Your task to perform on an android device: Go to CNN.com Image 0: 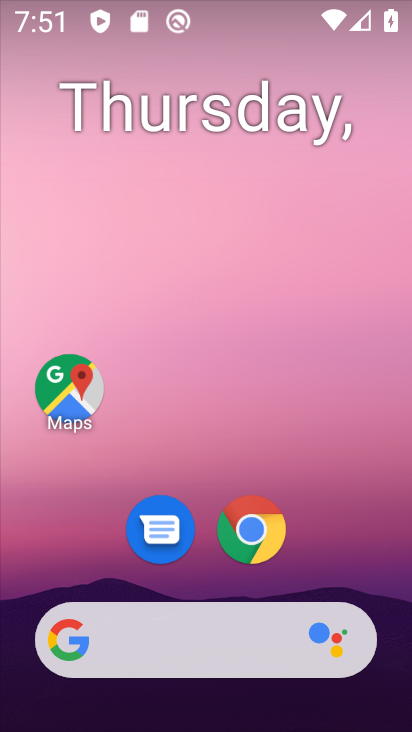
Step 0: click (181, 143)
Your task to perform on an android device: Go to CNN.com Image 1: 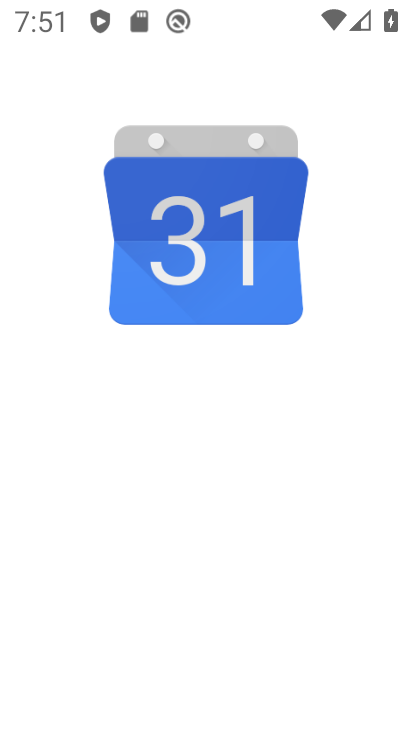
Step 1: drag from (273, 698) to (214, 11)
Your task to perform on an android device: Go to CNN.com Image 2: 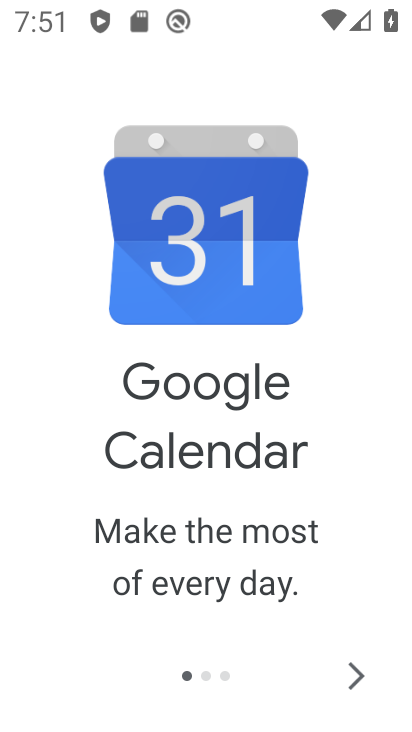
Step 2: click (350, 671)
Your task to perform on an android device: Go to CNN.com Image 3: 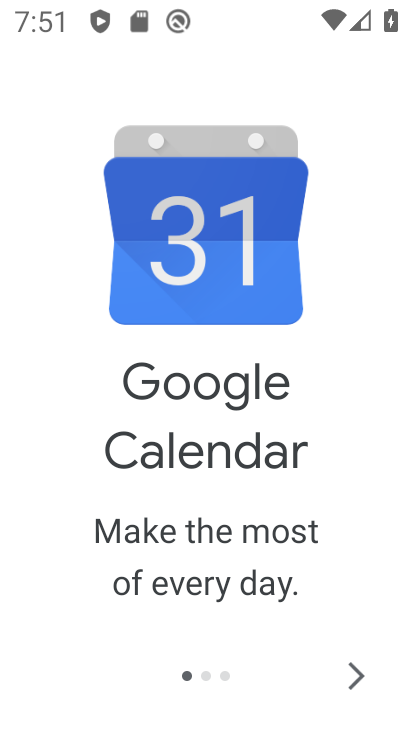
Step 3: click (350, 671)
Your task to perform on an android device: Go to CNN.com Image 4: 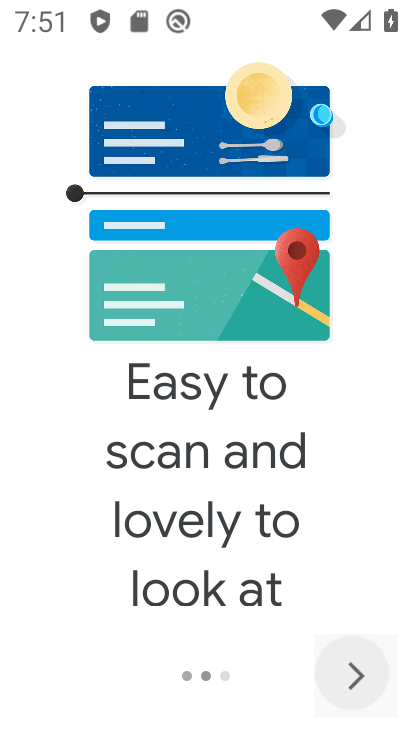
Step 4: click (350, 671)
Your task to perform on an android device: Go to CNN.com Image 5: 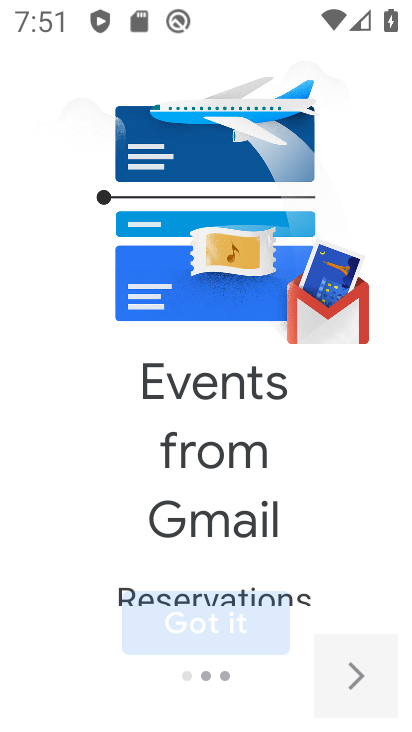
Step 5: click (350, 671)
Your task to perform on an android device: Go to CNN.com Image 6: 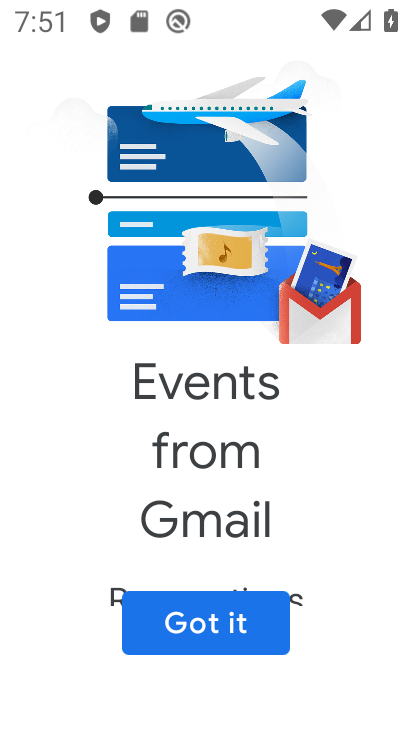
Step 6: click (204, 607)
Your task to perform on an android device: Go to CNN.com Image 7: 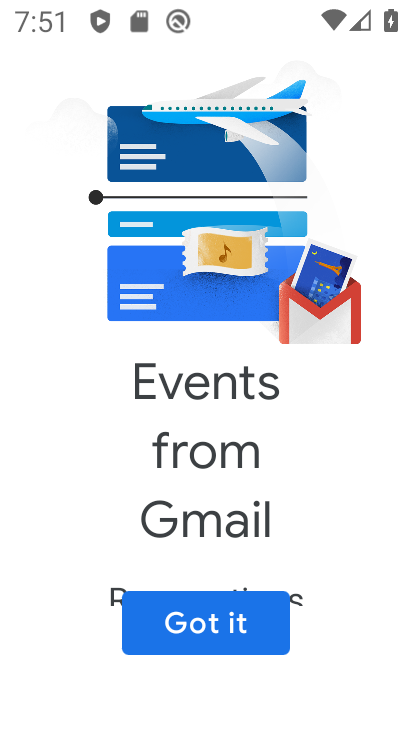
Step 7: click (204, 607)
Your task to perform on an android device: Go to CNN.com Image 8: 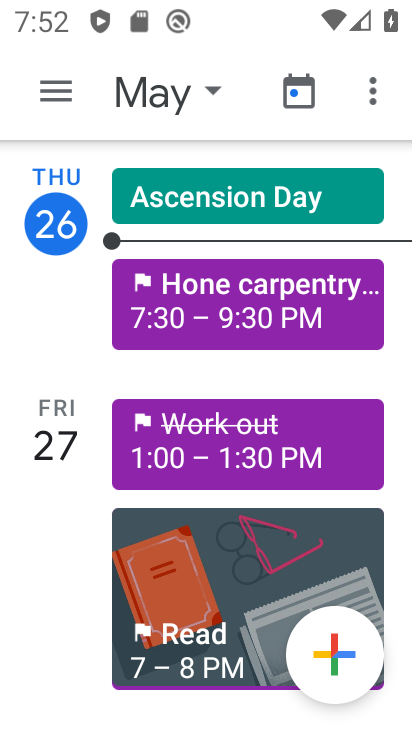
Step 8: press back button
Your task to perform on an android device: Go to CNN.com Image 9: 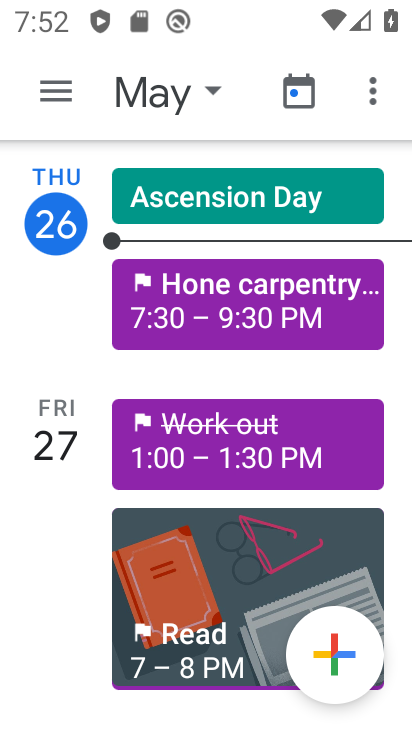
Step 9: press back button
Your task to perform on an android device: Go to CNN.com Image 10: 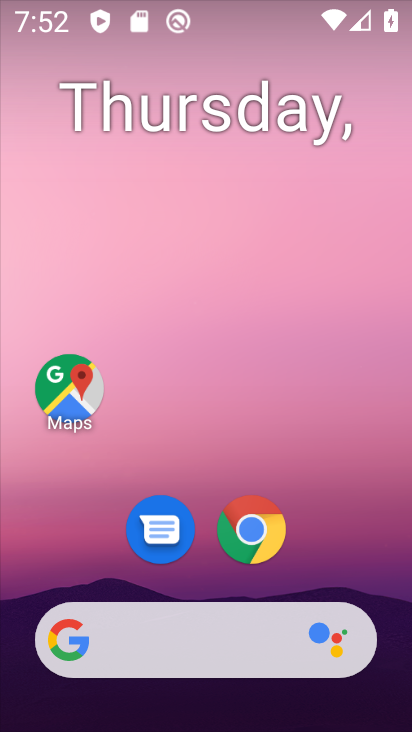
Step 10: press back button
Your task to perform on an android device: Go to CNN.com Image 11: 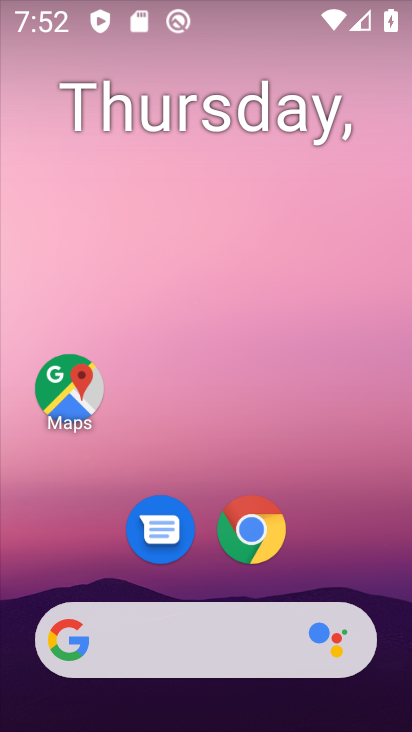
Step 11: drag from (242, 597) to (190, 78)
Your task to perform on an android device: Go to CNN.com Image 12: 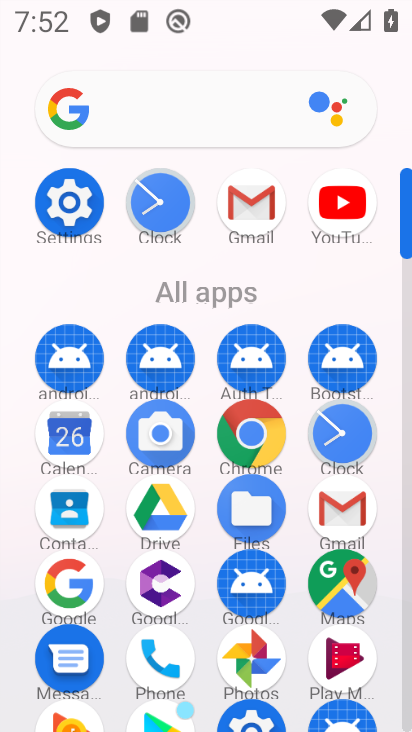
Step 12: click (259, 427)
Your task to perform on an android device: Go to CNN.com Image 13: 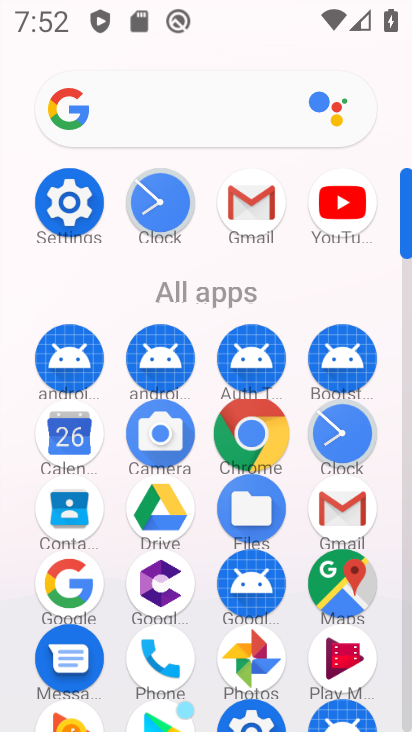
Step 13: click (263, 424)
Your task to perform on an android device: Go to CNN.com Image 14: 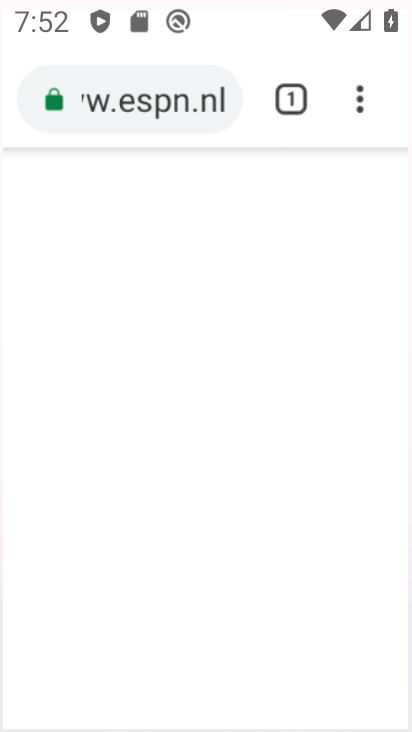
Step 14: click (265, 425)
Your task to perform on an android device: Go to CNN.com Image 15: 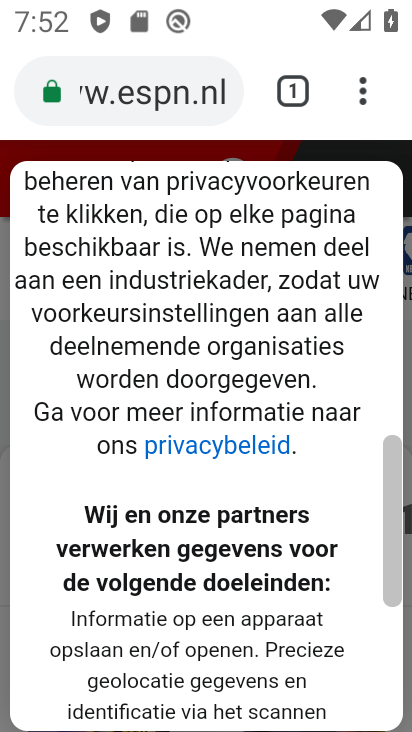
Step 15: click (355, 87)
Your task to perform on an android device: Go to CNN.com Image 16: 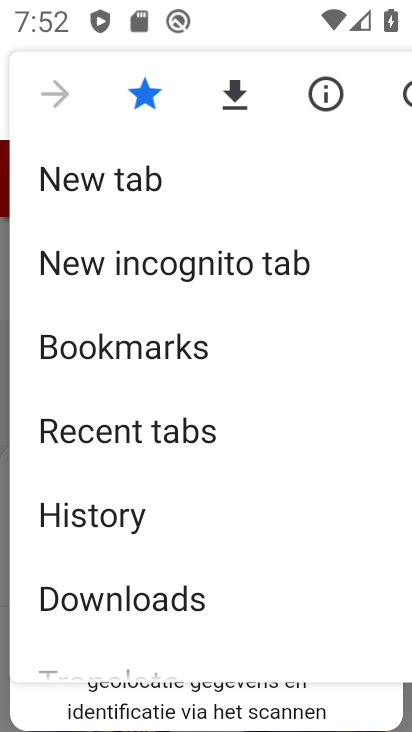
Step 16: click (115, 172)
Your task to perform on an android device: Go to CNN.com Image 17: 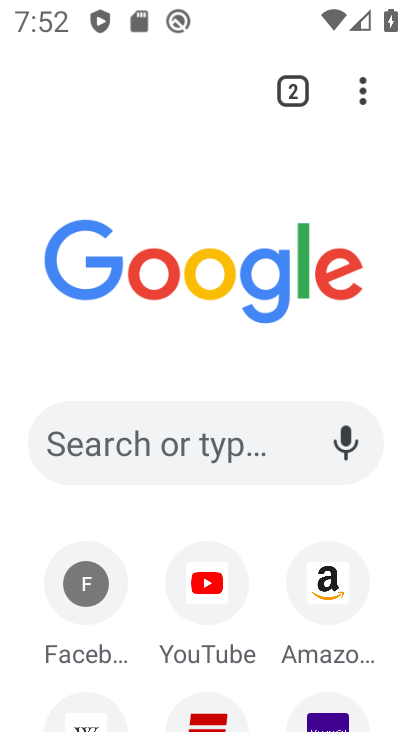
Step 17: click (147, 436)
Your task to perform on an android device: Go to CNN.com Image 18: 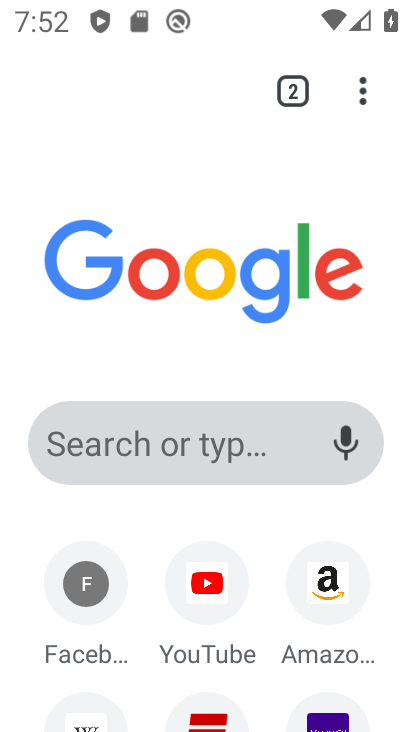
Step 18: click (135, 445)
Your task to perform on an android device: Go to CNN.com Image 19: 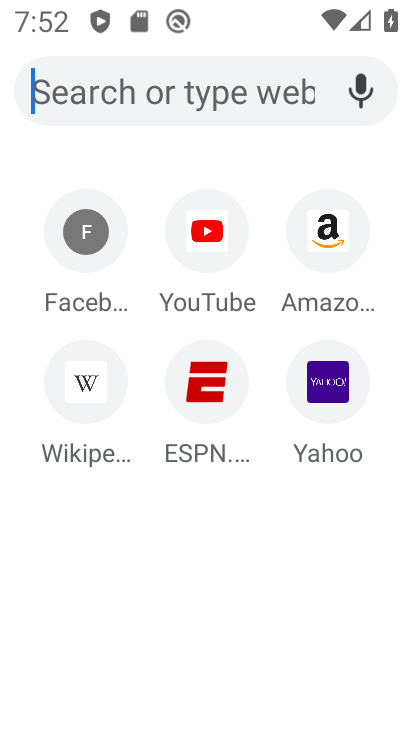
Step 19: click (135, 445)
Your task to perform on an android device: Go to CNN.com Image 20: 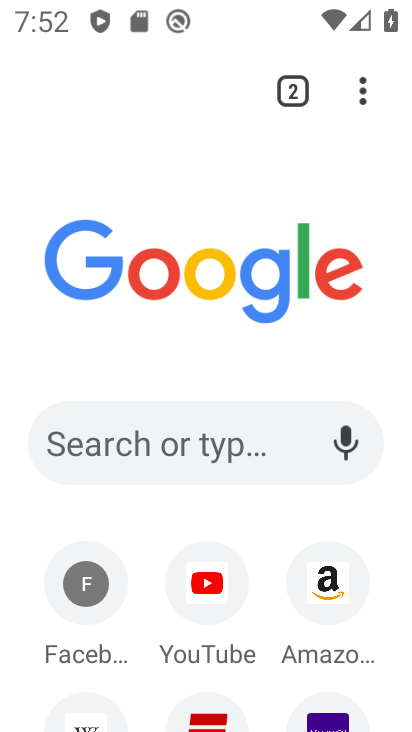
Step 20: click (67, 448)
Your task to perform on an android device: Go to CNN.com Image 21: 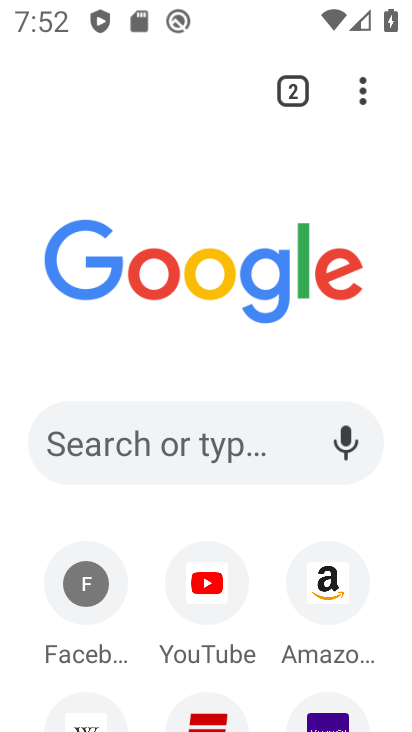
Step 21: click (67, 448)
Your task to perform on an android device: Go to CNN.com Image 22: 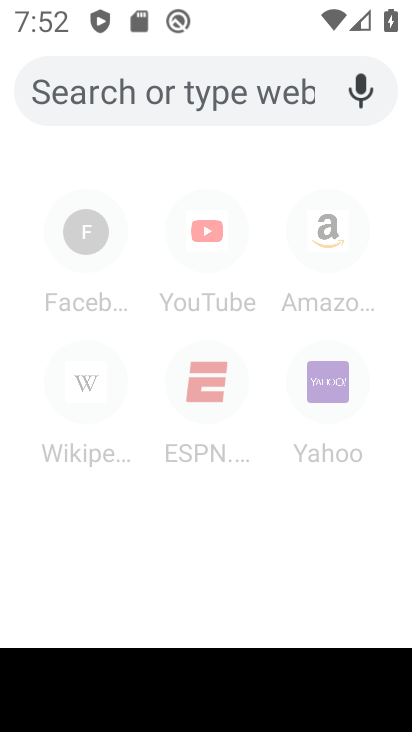
Step 22: click (67, 448)
Your task to perform on an android device: Go to CNN.com Image 23: 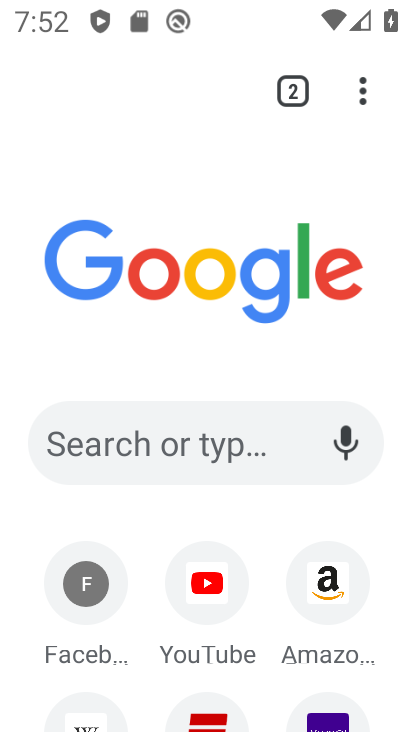
Step 23: click (46, 432)
Your task to perform on an android device: Go to CNN.com Image 24: 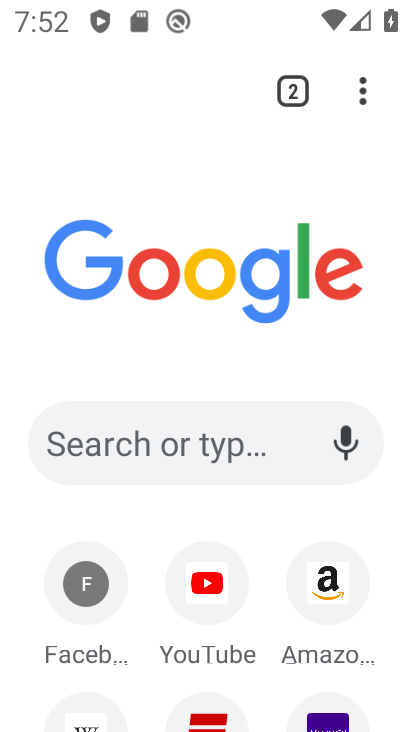
Step 24: click (45, 434)
Your task to perform on an android device: Go to CNN.com Image 25: 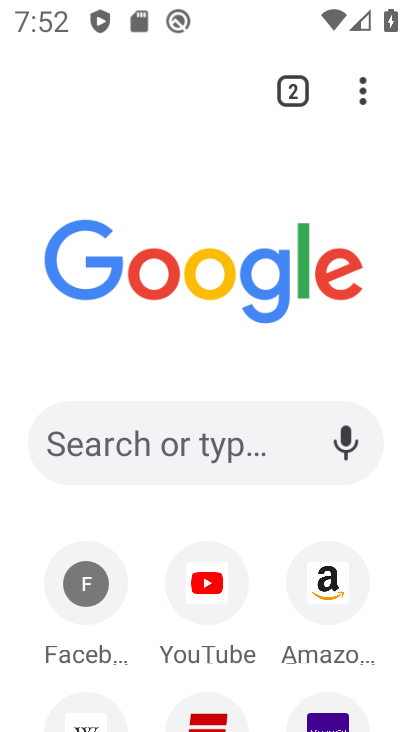
Step 25: click (69, 453)
Your task to perform on an android device: Go to CNN.com Image 26: 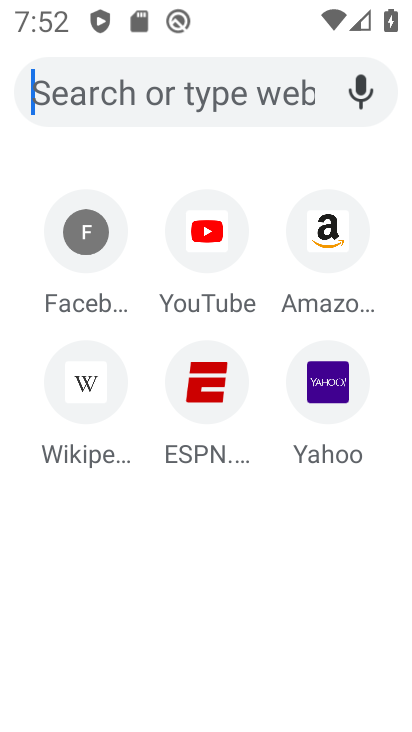
Step 26: click (64, 434)
Your task to perform on an android device: Go to CNN.com Image 27: 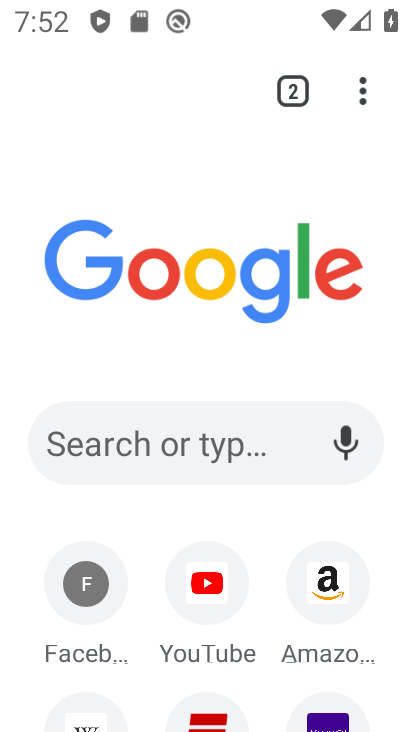
Step 27: type "cnn.com"
Your task to perform on an android device: Go to CNN.com Image 28: 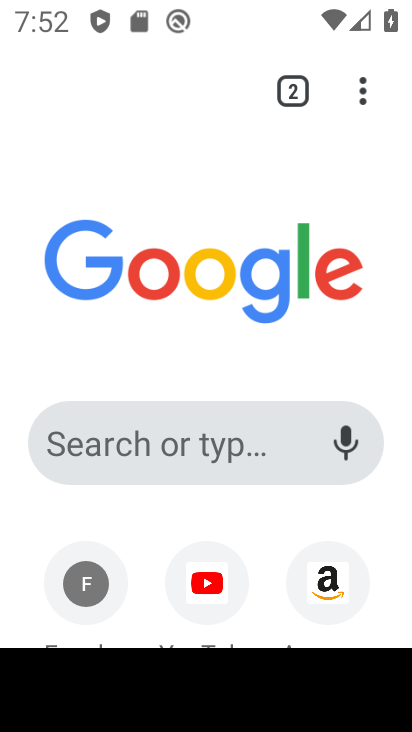
Step 28: click (67, 433)
Your task to perform on an android device: Go to CNN.com Image 29: 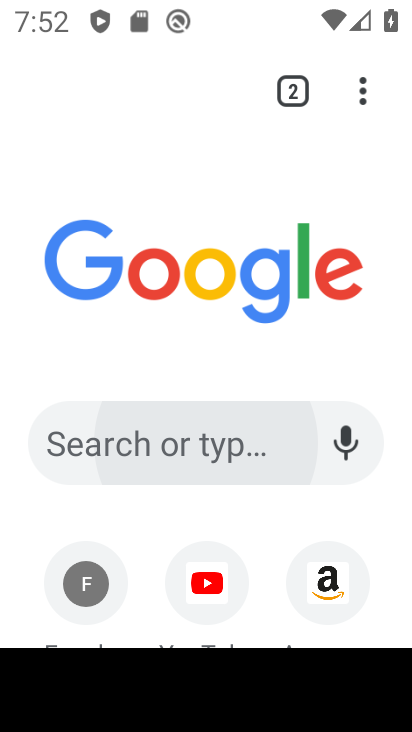
Step 29: click (69, 432)
Your task to perform on an android device: Go to CNN.com Image 30: 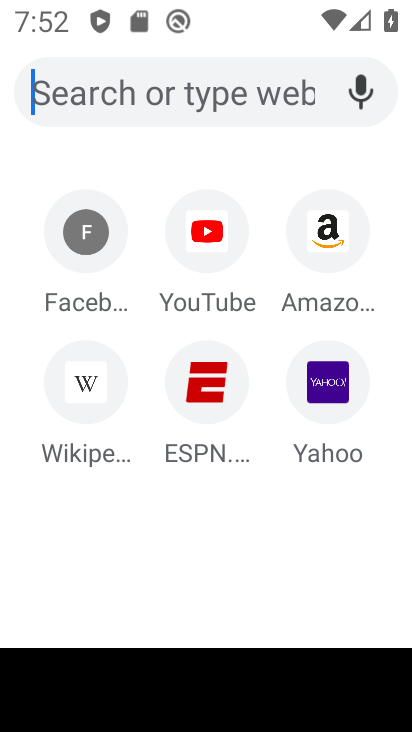
Step 30: click (71, 431)
Your task to perform on an android device: Go to CNN.com Image 31: 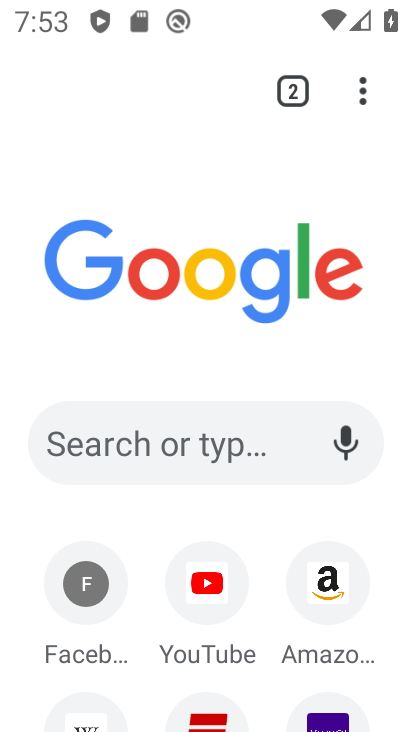
Step 31: click (48, 437)
Your task to perform on an android device: Go to CNN.com Image 32: 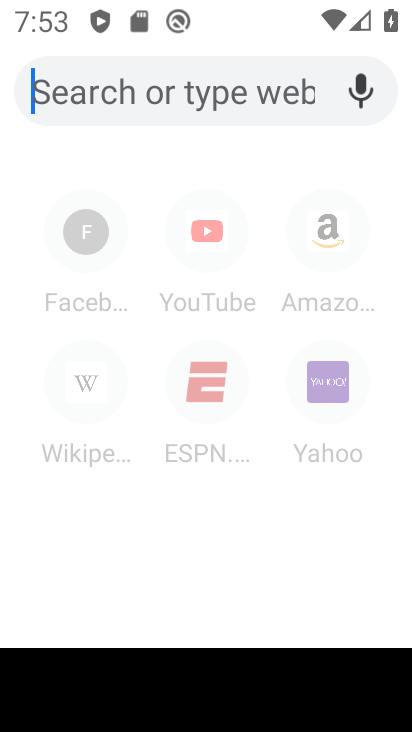
Step 32: type "cnn.com"
Your task to perform on an android device: Go to CNN.com Image 33: 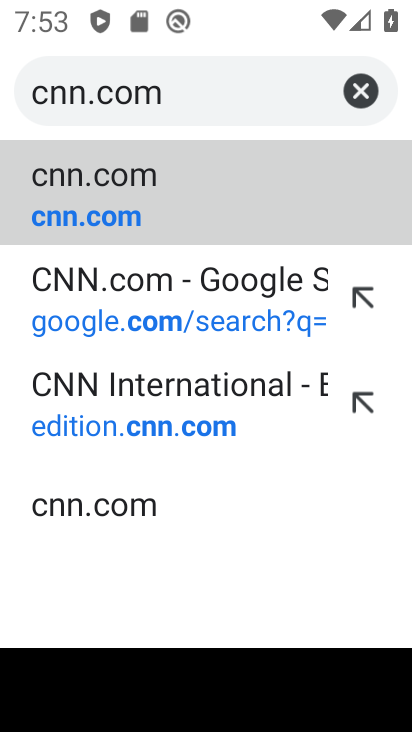
Step 33: click (72, 210)
Your task to perform on an android device: Go to CNN.com Image 34: 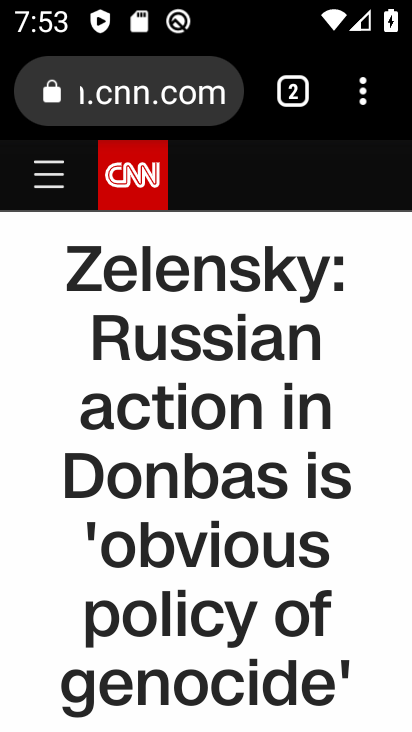
Step 34: task complete